Your task to perform on an android device: turn off improve location accuracy Image 0: 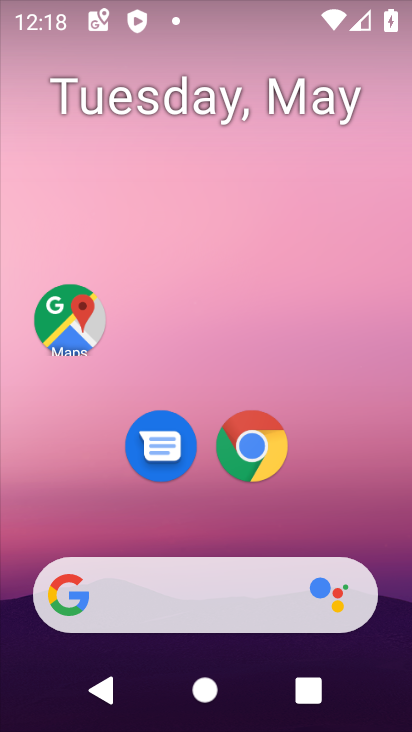
Step 0: drag from (339, 487) to (339, 60)
Your task to perform on an android device: turn off improve location accuracy Image 1: 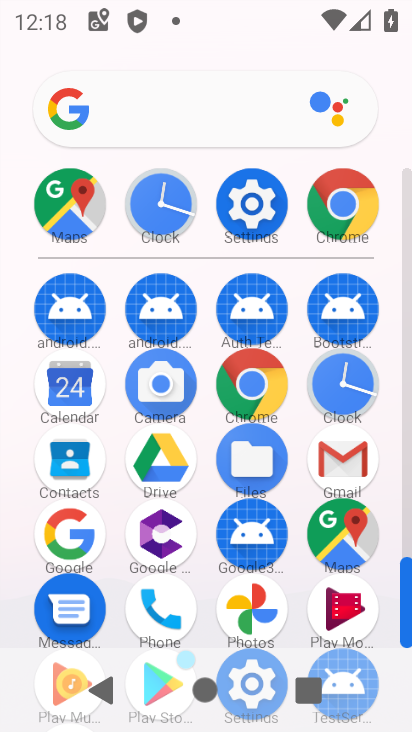
Step 1: click (260, 200)
Your task to perform on an android device: turn off improve location accuracy Image 2: 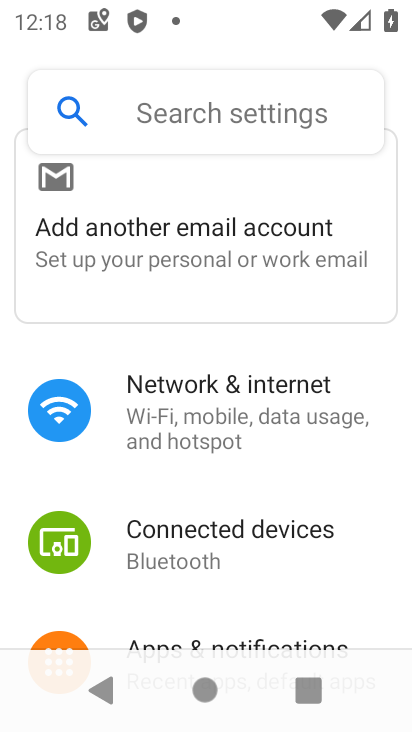
Step 2: drag from (251, 525) to (292, 113)
Your task to perform on an android device: turn off improve location accuracy Image 3: 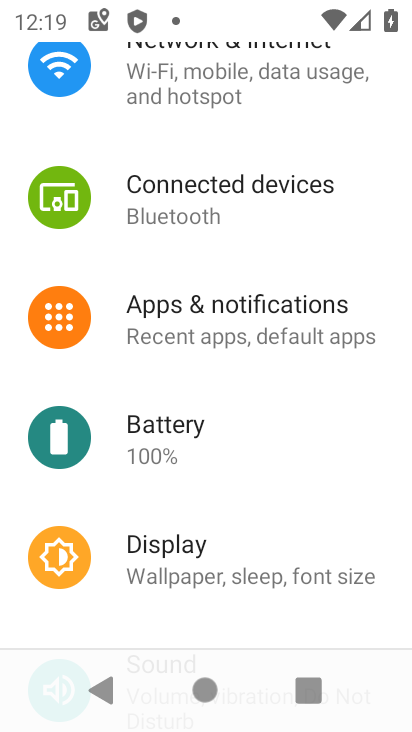
Step 3: drag from (246, 591) to (276, 97)
Your task to perform on an android device: turn off improve location accuracy Image 4: 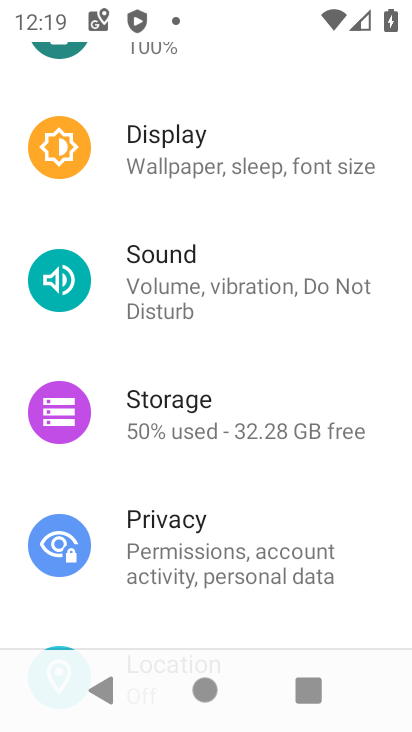
Step 4: drag from (236, 569) to (245, 113)
Your task to perform on an android device: turn off improve location accuracy Image 5: 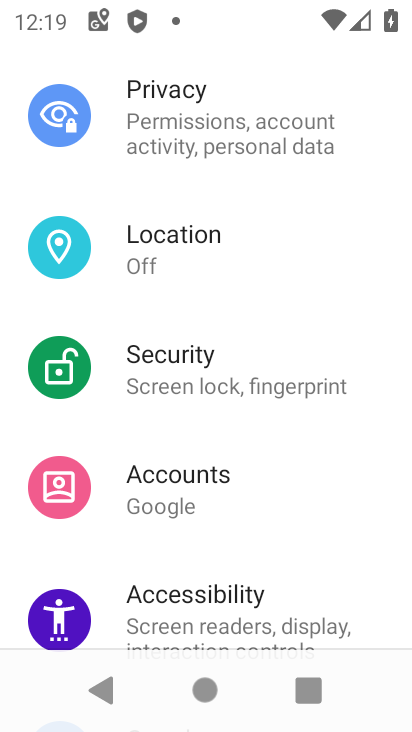
Step 5: click (158, 238)
Your task to perform on an android device: turn off improve location accuracy Image 6: 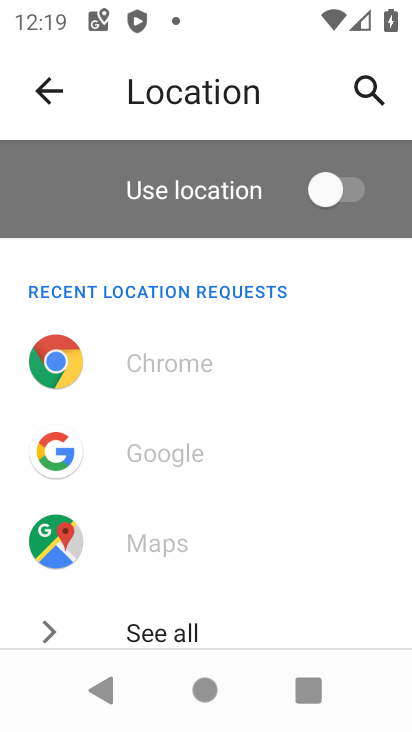
Step 6: drag from (187, 536) to (132, 158)
Your task to perform on an android device: turn off improve location accuracy Image 7: 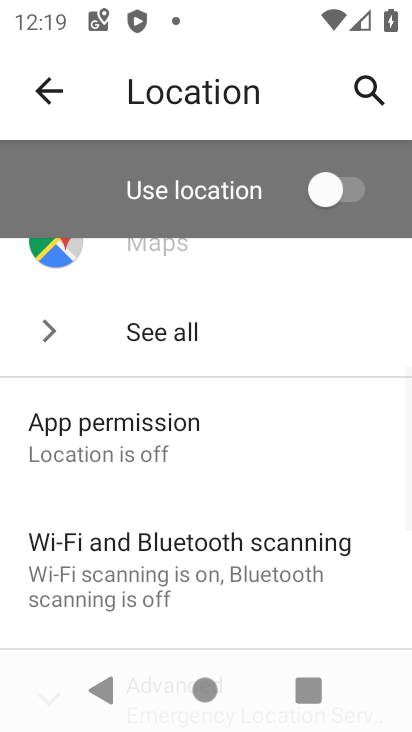
Step 7: drag from (249, 646) to (179, 195)
Your task to perform on an android device: turn off improve location accuracy Image 8: 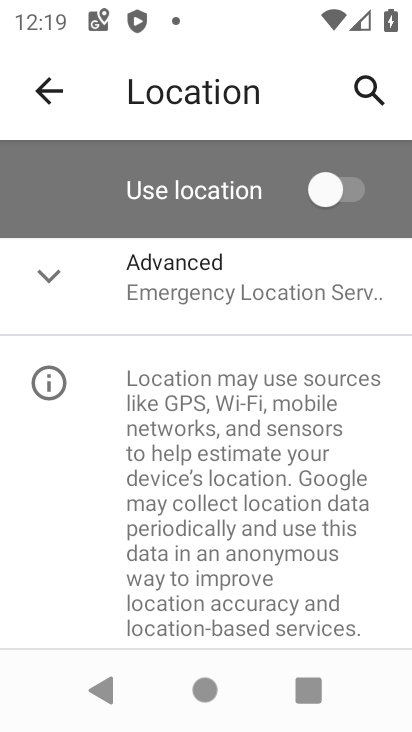
Step 8: drag from (222, 302) to (235, 502)
Your task to perform on an android device: turn off improve location accuracy Image 9: 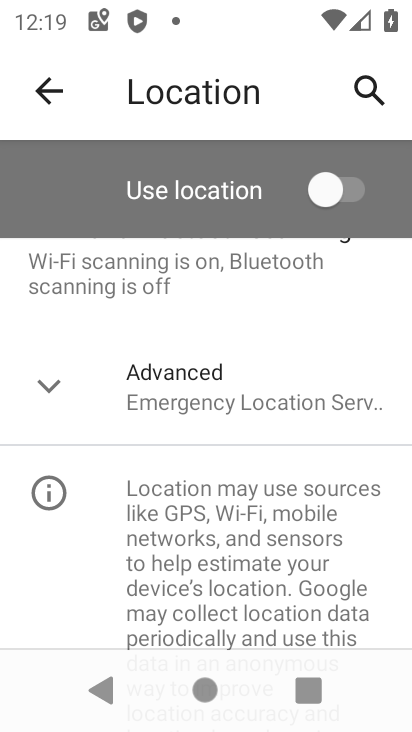
Step 9: click (219, 416)
Your task to perform on an android device: turn off improve location accuracy Image 10: 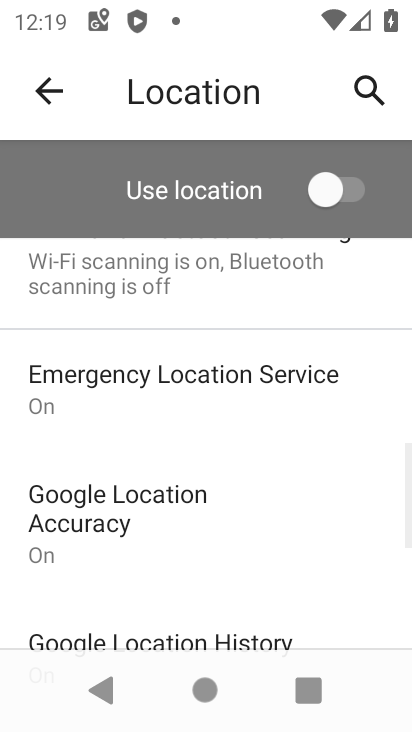
Step 10: click (93, 538)
Your task to perform on an android device: turn off improve location accuracy Image 11: 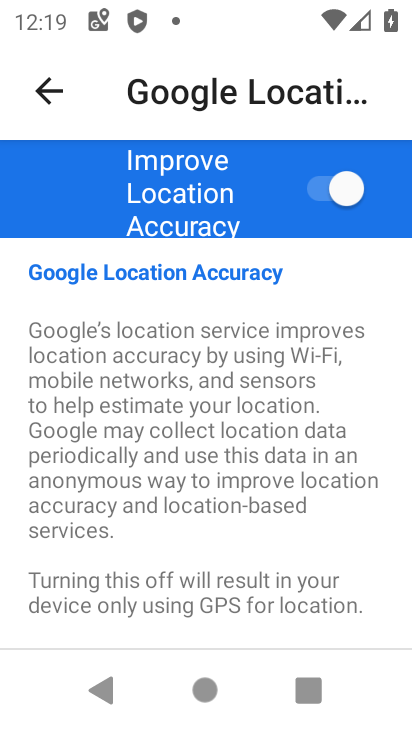
Step 11: click (346, 212)
Your task to perform on an android device: turn off improve location accuracy Image 12: 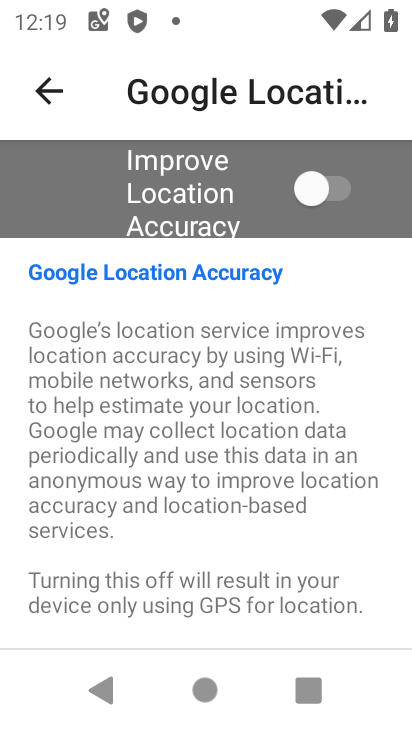
Step 12: task complete